Your task to perform on an android device: Search for vegetarian restaurants on Maps Image 0: 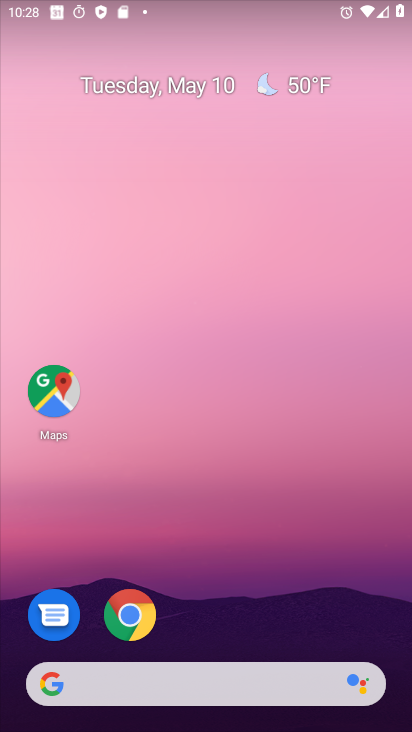
Step 0: click (53, 382)
Your task to perform on an android device: Search for vegetarian restaurants on Maps Image 1: 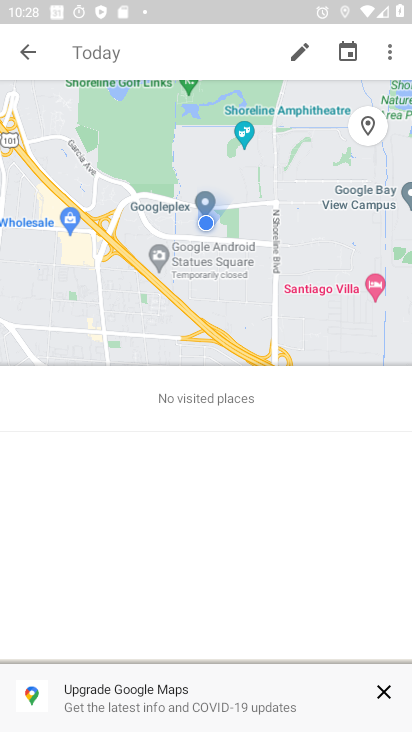
Step 1: click (31, 49)
Your task to perform on an android device: Search for vegetarian restaurants on Maps Image 2: 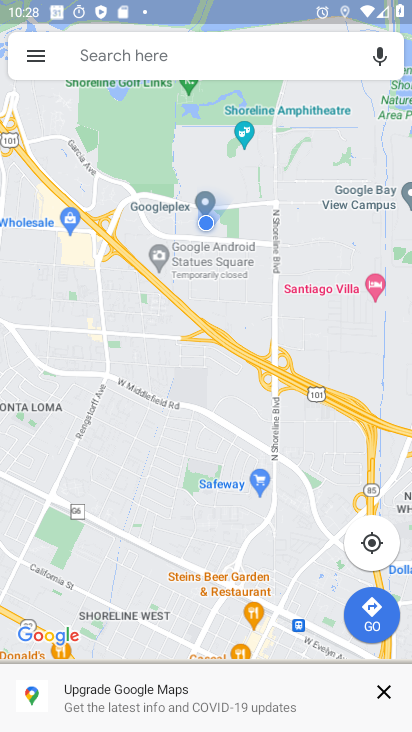
Step 2: click (131, 58)
Your task to perform on an android device: Search for vegetarian restaurants on Maps Image 3: 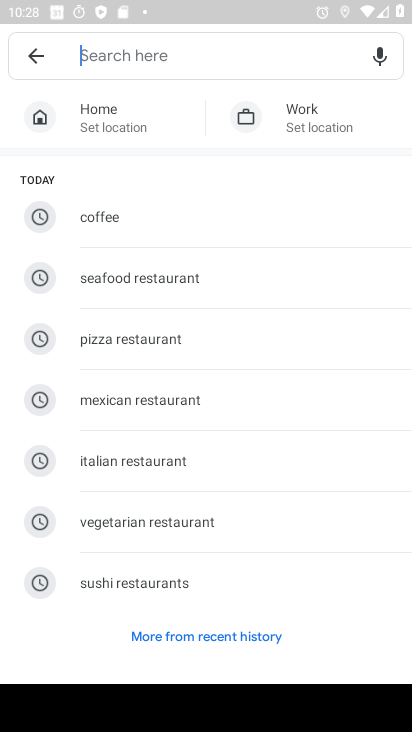
Step 3: click (149, 526)
Your task to perform on an android device: Search for vegetarian restaurants on Maps Image 4: 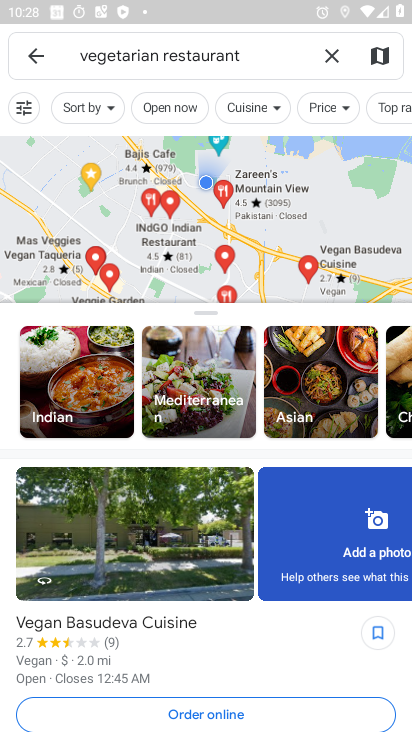
Step 4: task complete